Your task to perform on an android device: Search for sushi restaurants on Maps Image 0: 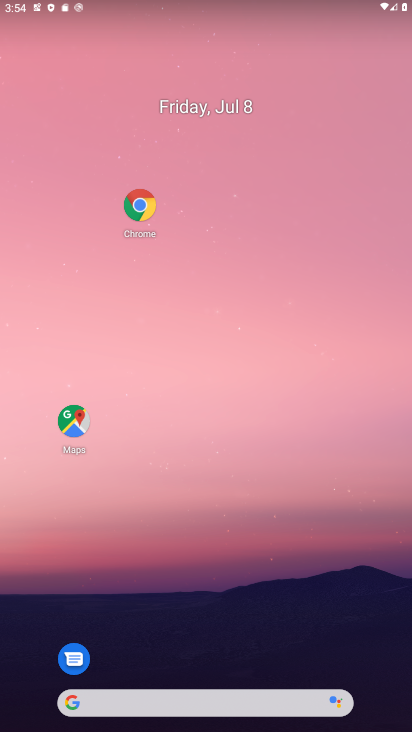
Step 0: click (82, 432)
Your task to perform on an android device: Search for sushi restaurants on Maps Image 1: 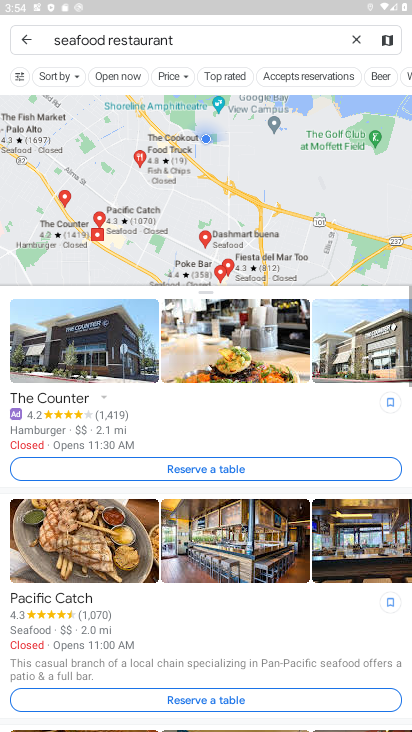
Step 1: click (353, 39)
Your task to perform on an android device: Search for sushi restaurants on Maps Image 2: 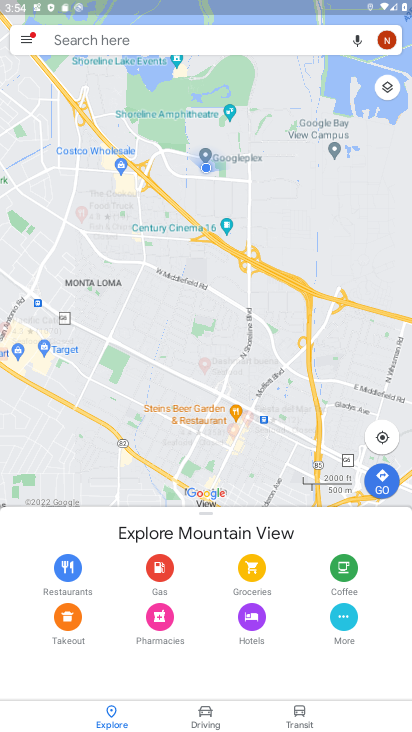
Step 2: click (174, 39)
Your task to perform on an android device: Search for sushi restaurants on Maps Image 3: 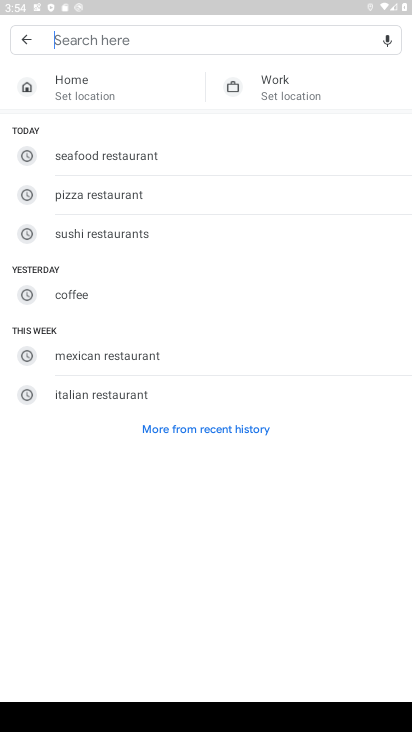
Step 3: click (112, 242)
Your task to perform on an android device: Search for sushi restaurants on Maps Image 4: 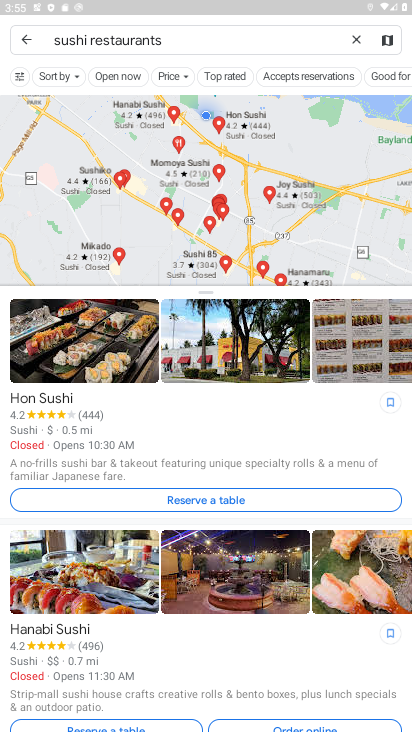
Step 4: task complete